Your task to perform on an android device: Open Google Maps and go to "Timeline" Image 0: 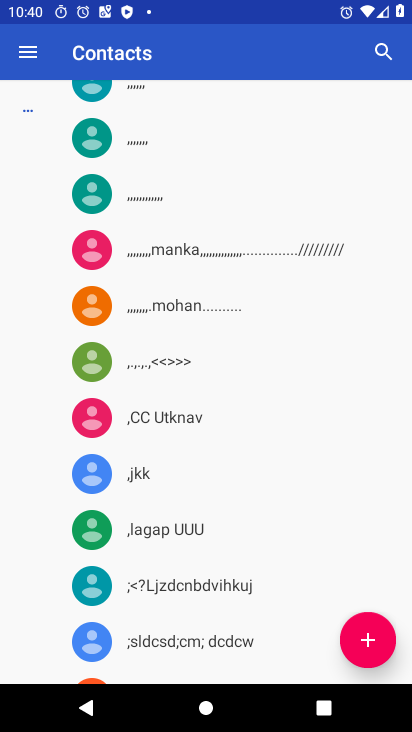
Step 0: press home button
Your task to perform on an android device: Open Google Maps and go to "Timeline" Image 1: 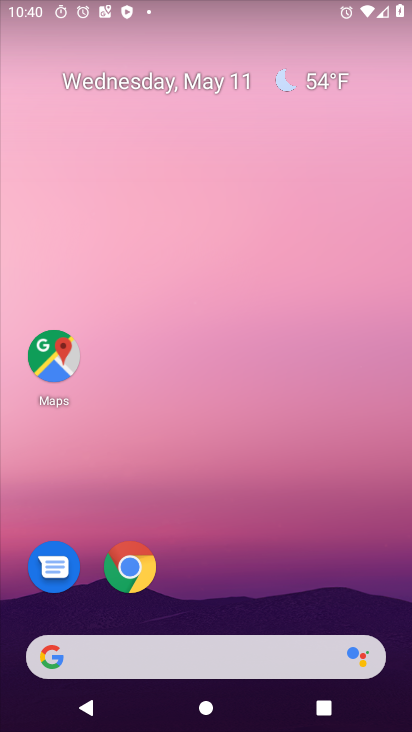
Step 1: drag from (269, 620) to (272, 3)
Your task to perform on an android device: Open Google Maps and go to "Timeline" Image 2: 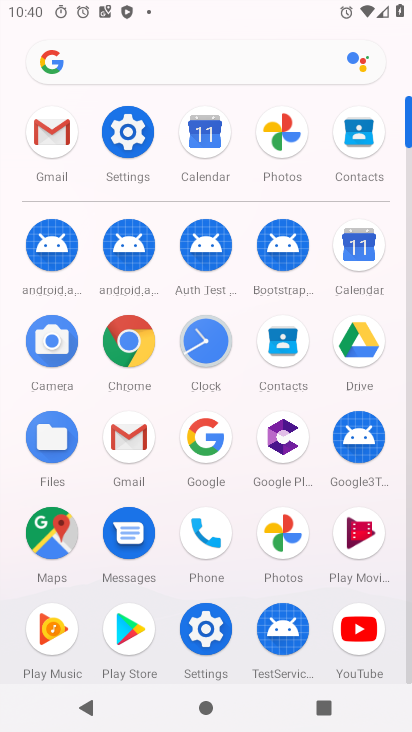
Step 2: click (59, 530)
Your task to perform on an android device: Open Google Maps and go to "Timeline" Image 3: 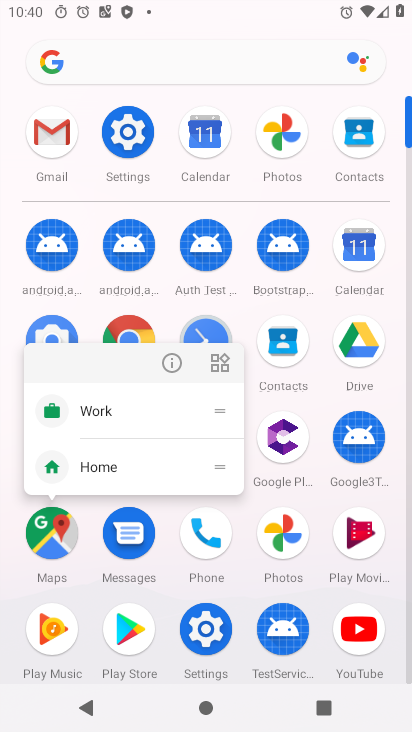
Step 3: click (47, 544)
Your task to perform on an android device: Open Google Maps and go to "Timeline" Image 4: 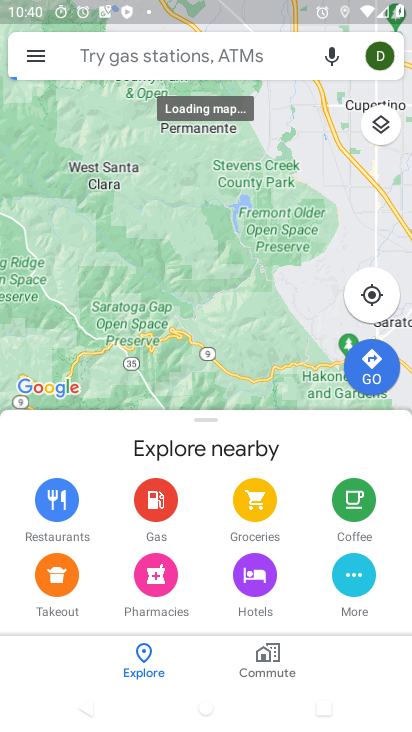
Step 4: click (34, 49)
Your task to perform on an android device: Open Google Maps and go to "Timeline" Image 5: 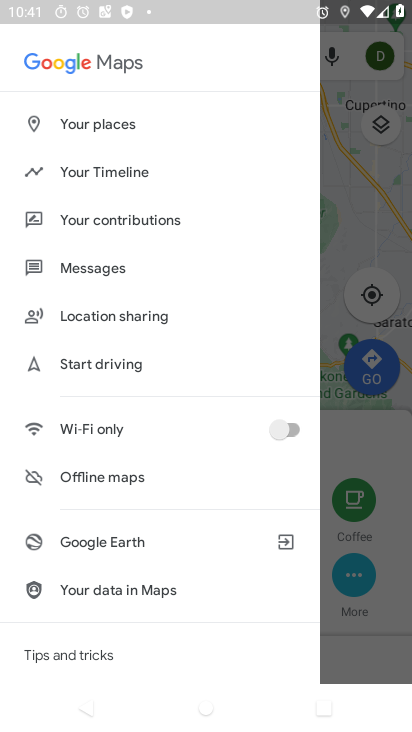
Step 5: click (108, 179)
Your task to perform on an android device: Open Google Maps and go to "Timeline" Image 6: 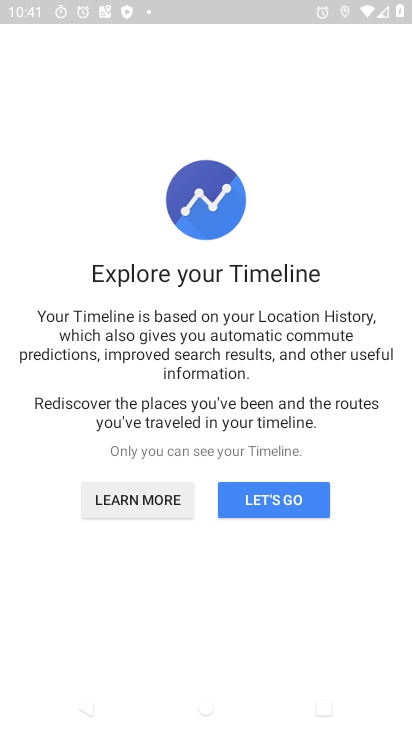
Step 6: click (309, 494)
Your task to perform on an android device: Open Google Maps and go to "Timeline" Image 7: 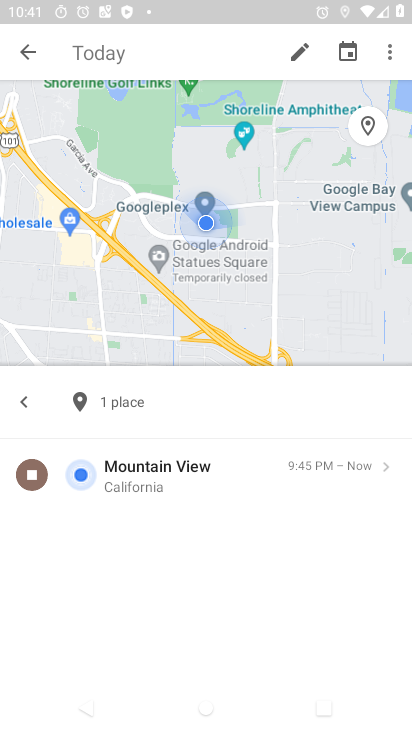
Step 7: task complete